Your task to perform on an android device: check storage Image 0: 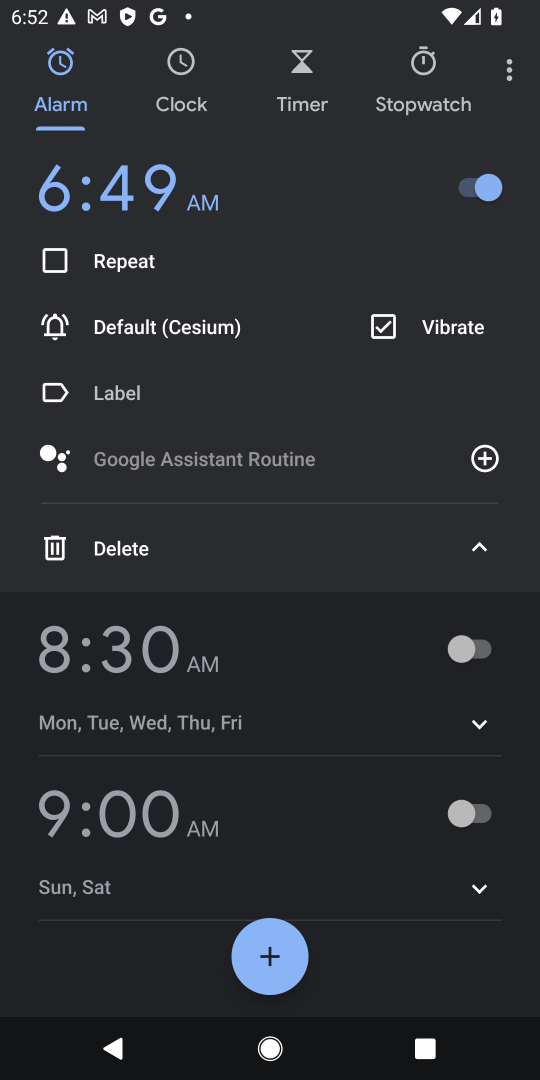
Step 0: press home button
Your task to perform on an android device: check storage Image 1: 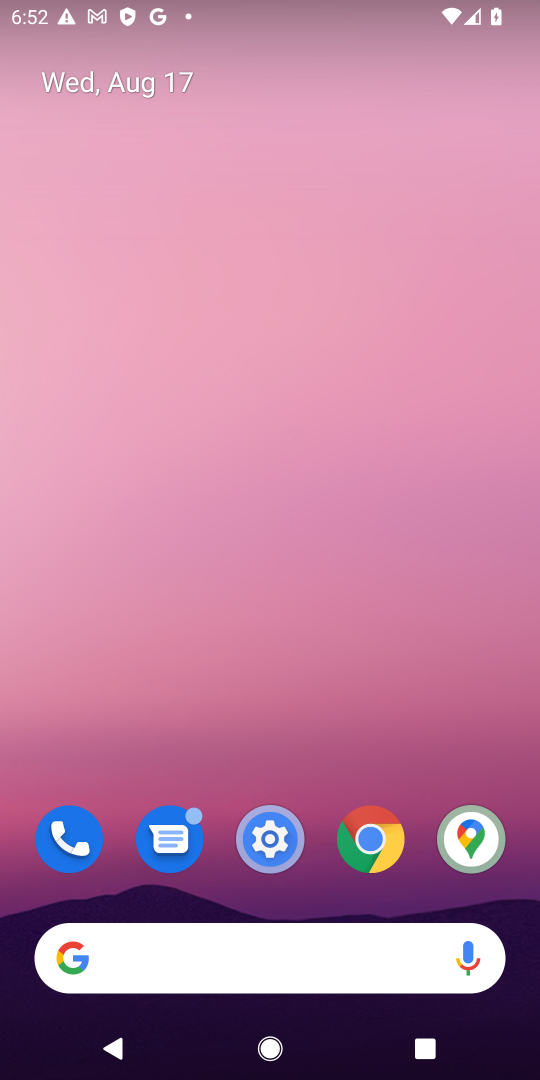
Step 1: click (263, 864)
Your task to perform on an android device: check storage Image 2: 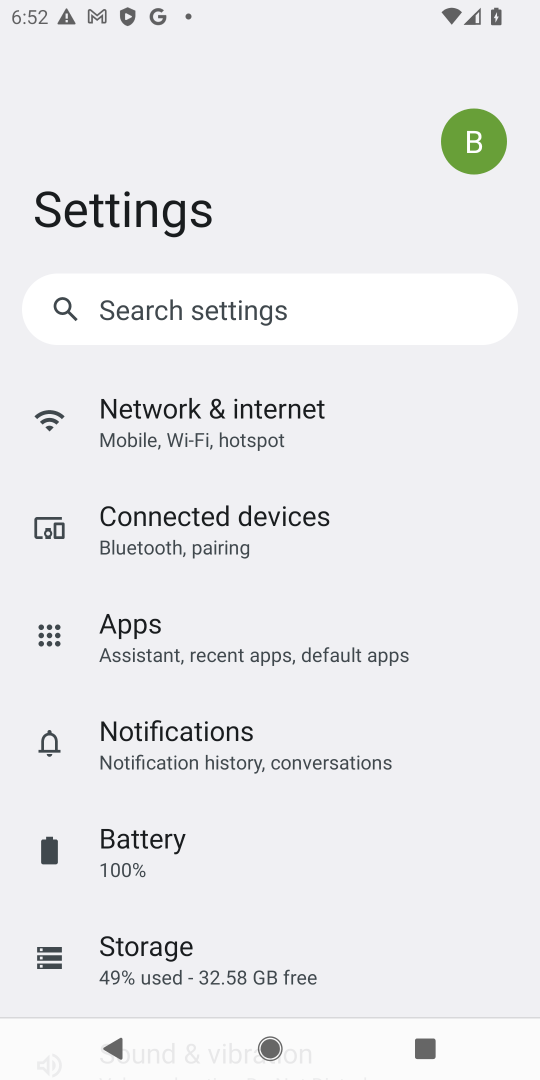
Step 2: click (173, 932)
Your task to perform on an android device: check storage Image 3: 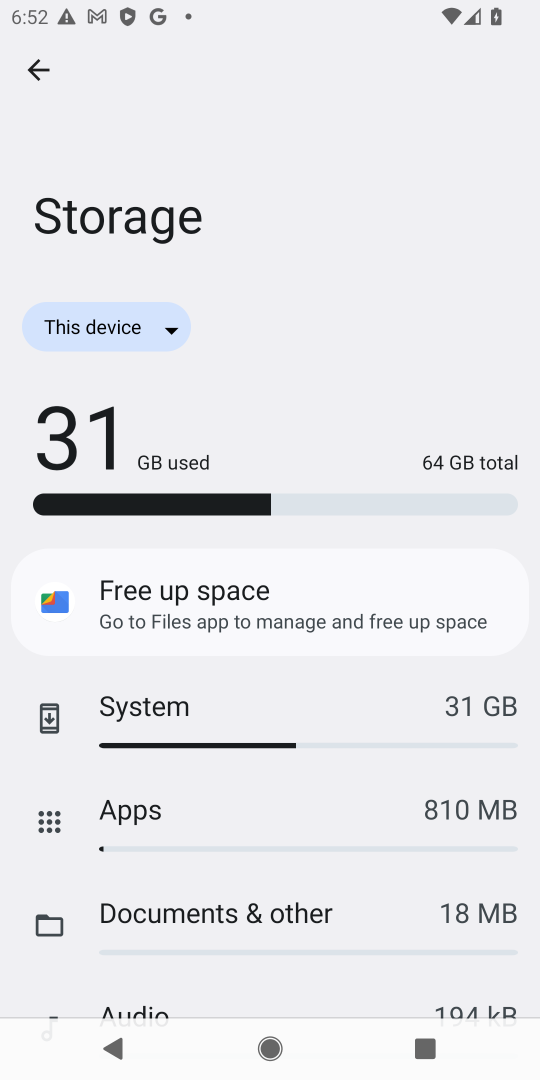
Step 3: task complete